Your task to perform on an android device: Go to notification settings Image 0: 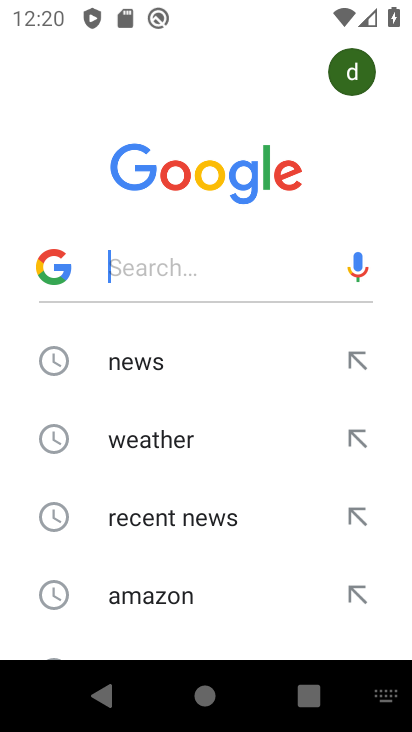
Step 0: press back button
Your task to perform on an android device: Go to notification settings Image 1: 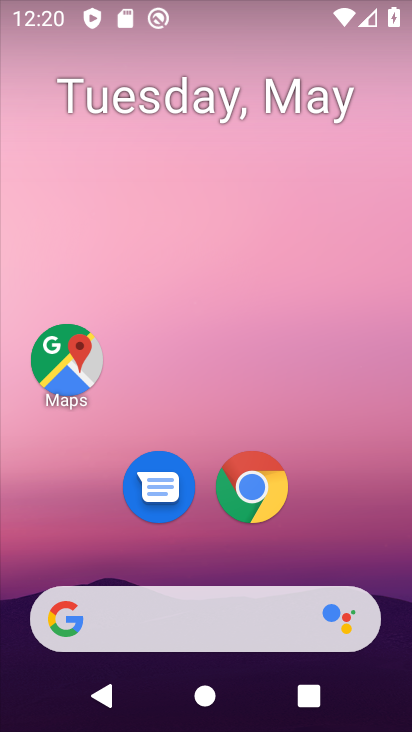
Step 1: drag from (328, 488) to (233, 32)
Your task to perform on an android device: Go to notification settings Image 2: 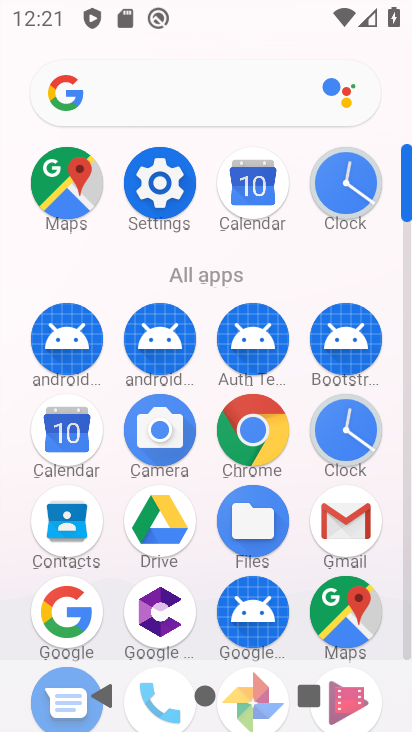
Step 2: click (155, 180)
Your task to perform on an android device: Go to notification settings Image 3: 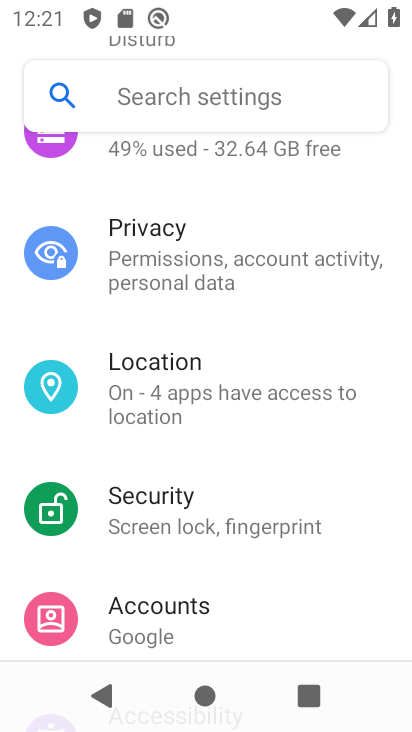
Step 3: drag from (264, 288) to (279, 580)
Your task to perform on an android device: Go to notification settings Image 4: 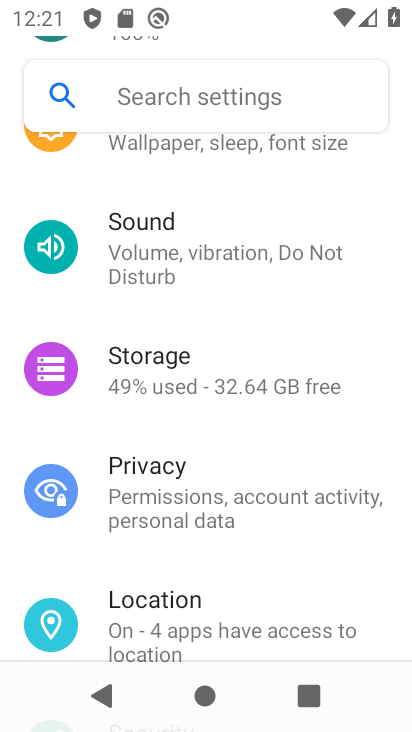
Step 4: drag from (285, 243) to (297, 572)
Your task to perform on an android device: Go to notification settings Image 5: 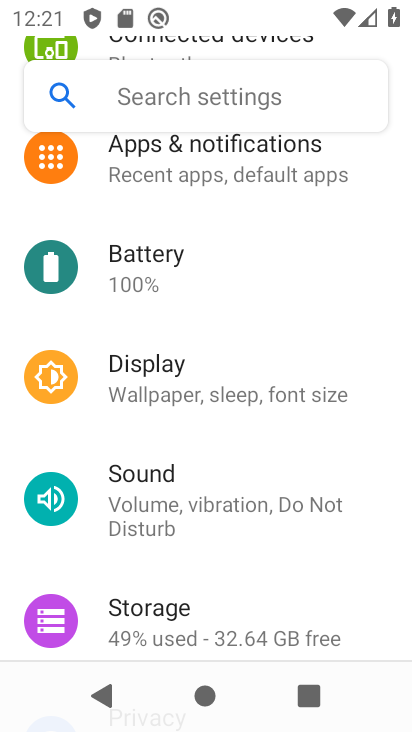
Step 5: click (299, 173)
Your task to perform on an android device: Go to notification settings Image 6: 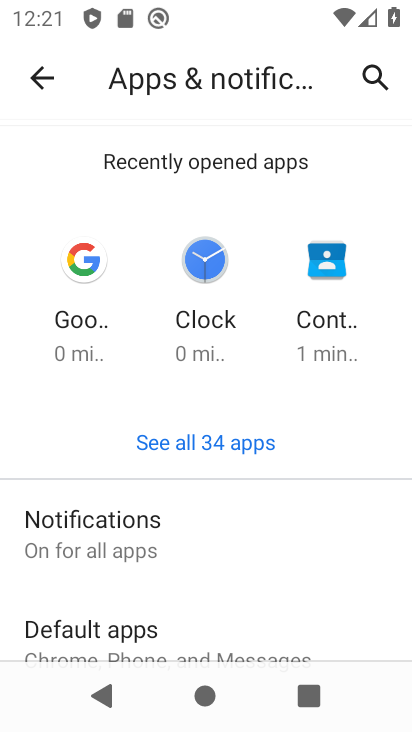
Step 6: click (180, 535)
Your task to perform on an android device: Go to notification settings Image 7: 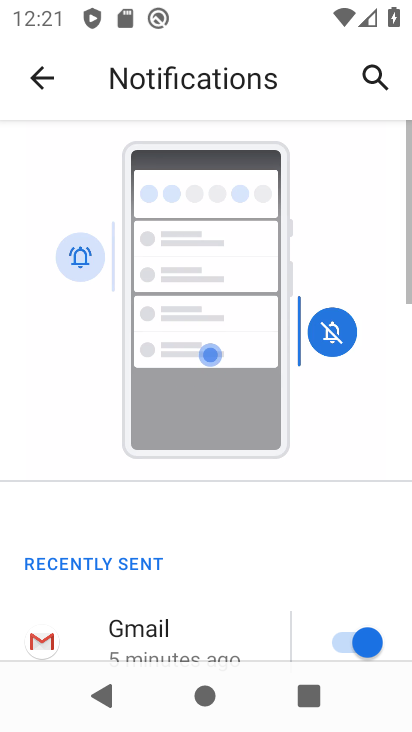
Step 7: drag from (240, 531) to (246, 221)
Your task to perform on an android device: Go to notification settings Image 8: 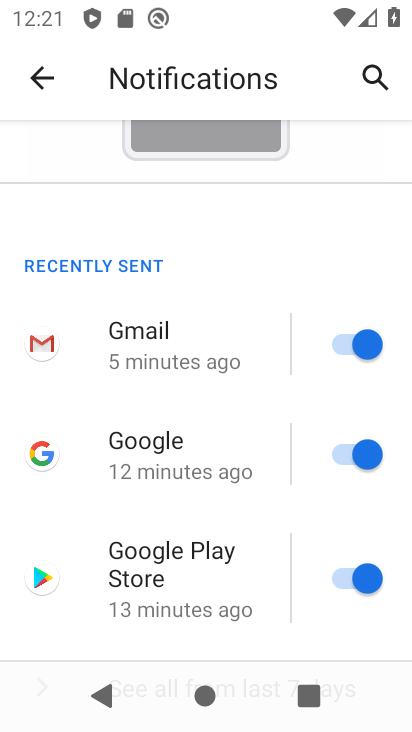
Step 8: drag from (215, 545) to (217, 236)
Your task to perform on an android device: Go to notification settings Image 9: 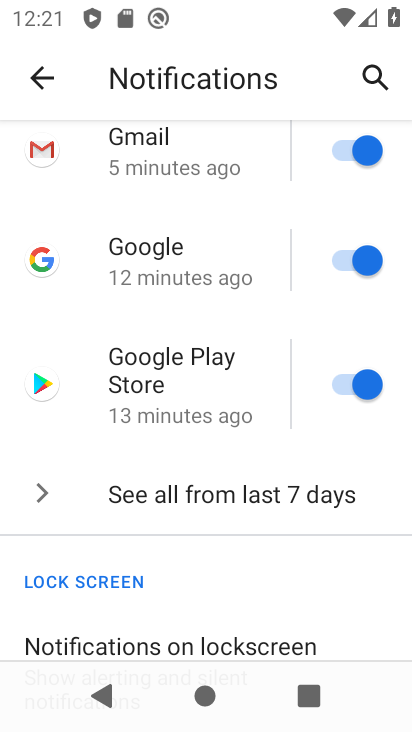
Step 9: drag from (217, 486) to (215, 172)
Your task to perform on an android device: Go to notification settings Image 10: 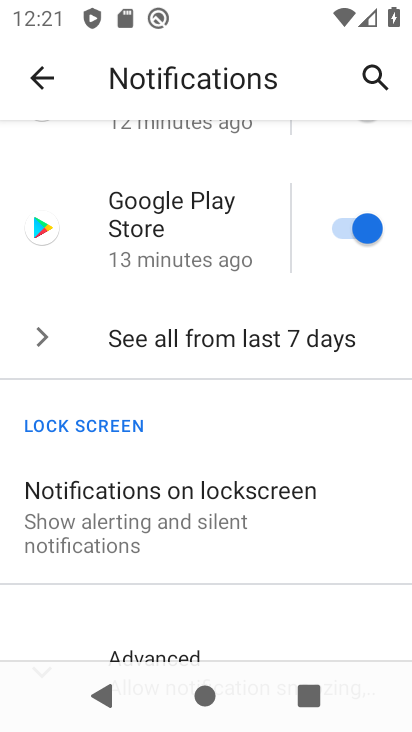
Step 10: drag from (216, 605) to (258, 146)
Your task to perform on an android device: Go to notification settings Image 11: 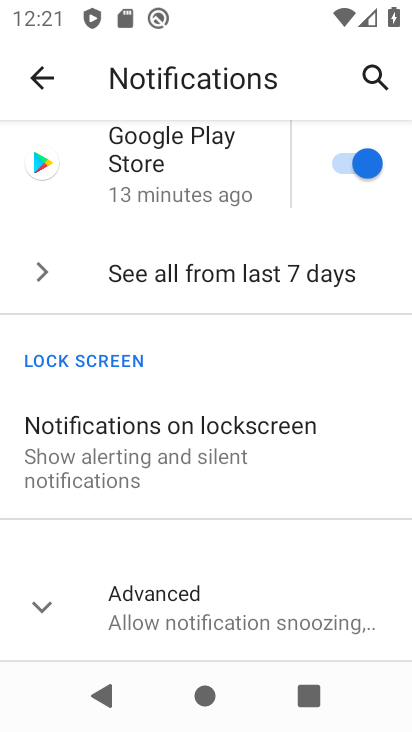
Step 11: click (33, 610)
Your task to perform on an android device: Go to notification settings Image 12: 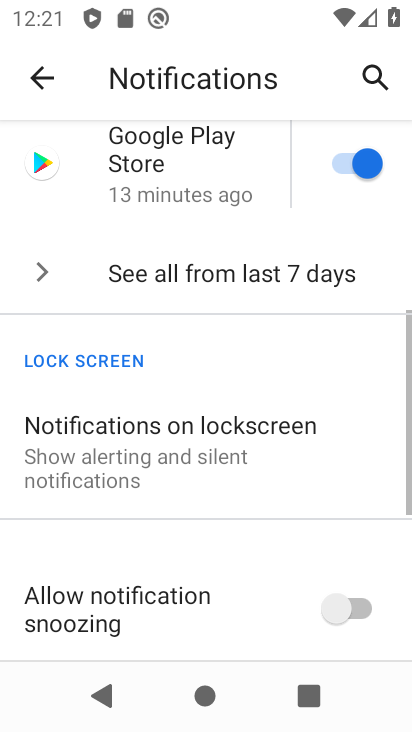
Step 12: task complete